Your task to perform on an android device: see creations saved in the google photos Image 0: 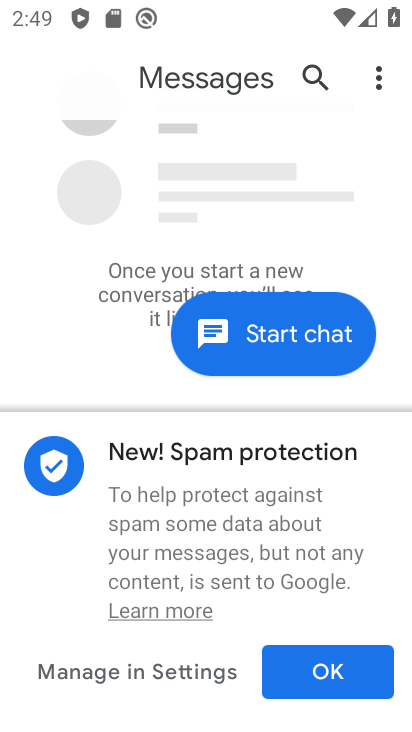
Step 0: press home button
Your task to perform on an android device: see creations saved in the google photos Image 1: 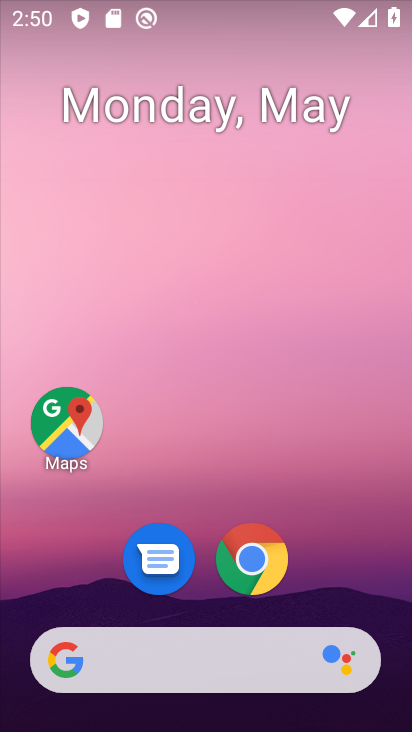
Step 1: drag from (360, 565) to (271, 99)
Your task to perform on an android device: see creations saved in the google photos Image 2: 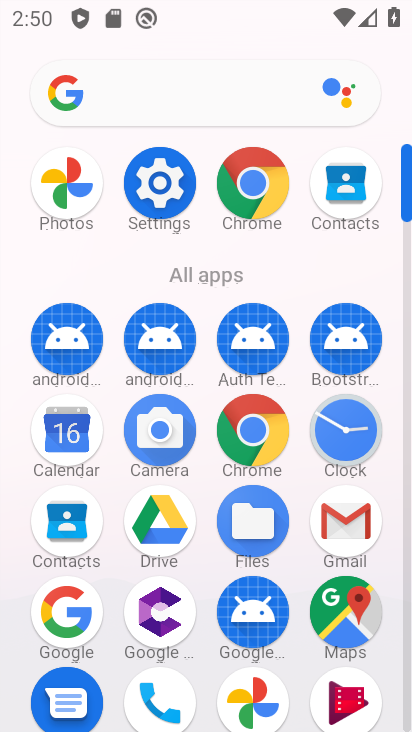
Step 2: click (67, 162)
Your task to perform on an android device: see creations saved in the google photos Image 3: 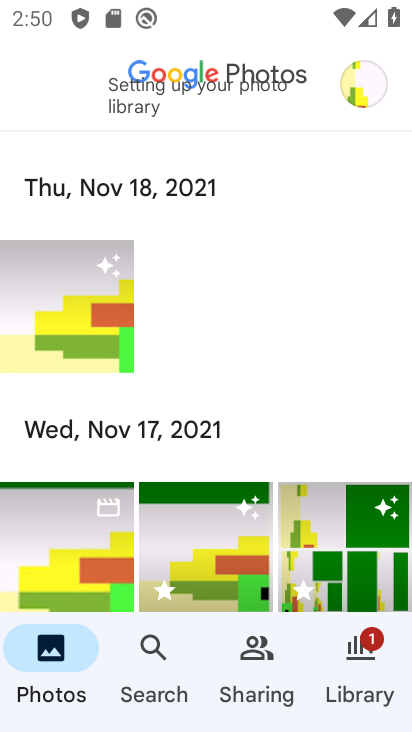
Step 3: click (170, 660)
Your task to perform on an android device: see creations saved in the google photos Image 4: 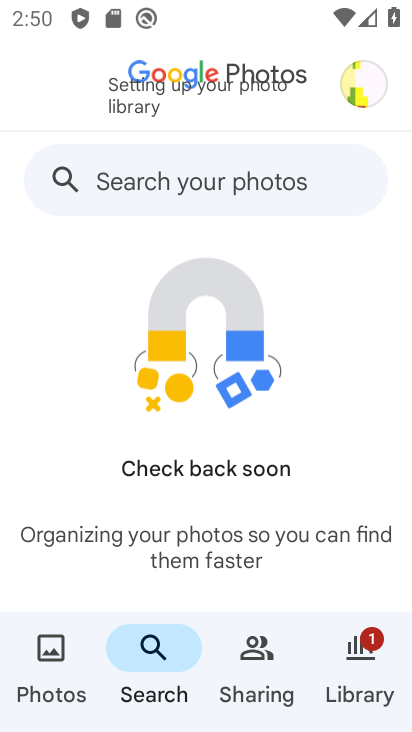
Step 4: click (189, 182)
Your task to perform on an android device: see creations saved in the google photos Image 5: 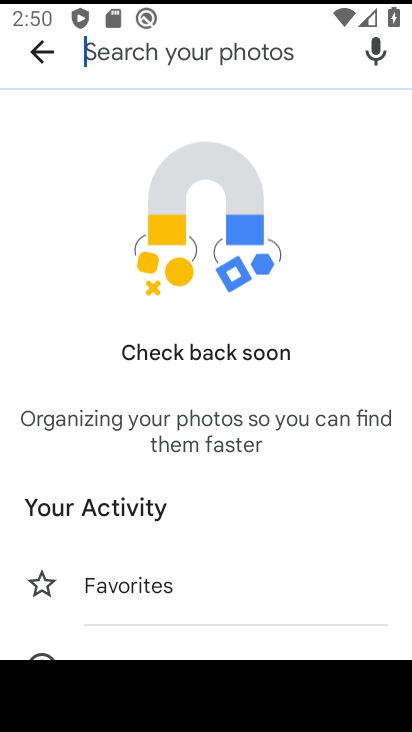
Step 5: task complete